Your task to perform on an android device: change the upload size in google photos Image 0: 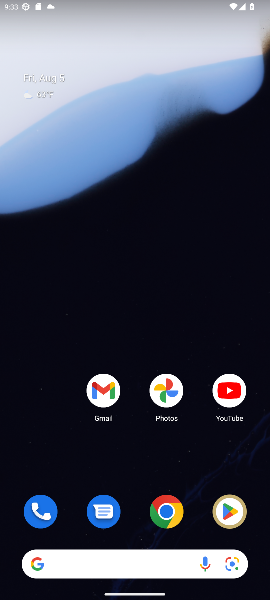
Step 0: drag from (123, 564) to (178, 213)
Your task to perform on an android device: change the upload size in google photos Image 1: 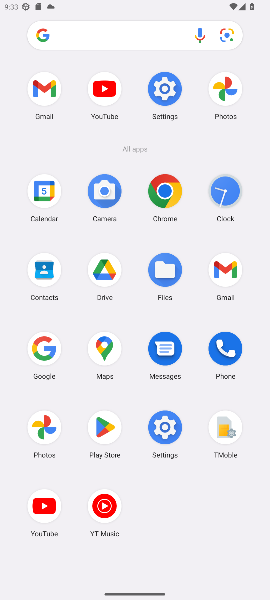
Step 1: click (226, 91)
Your task to perform on an android device: change the upload size in google photos Image 2: 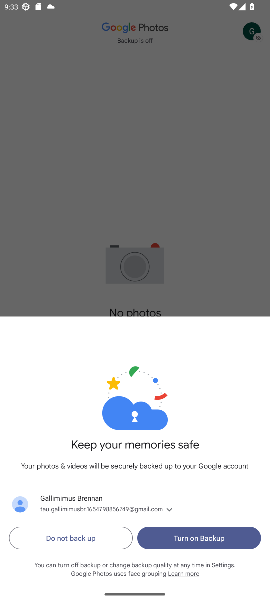
Step 2: click (192, 536)
Your task to perform on an android device: change the upload size in google photos Image 3: 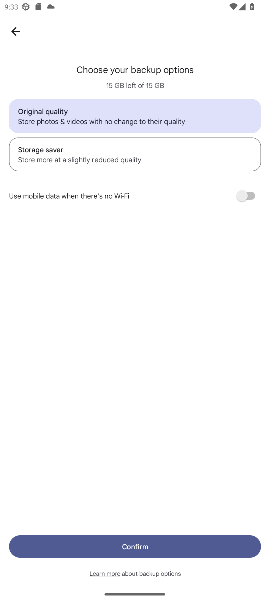
Step 3: click (187, 541)
Your task to perform on an android device: change the upload size in google photos Image 4: 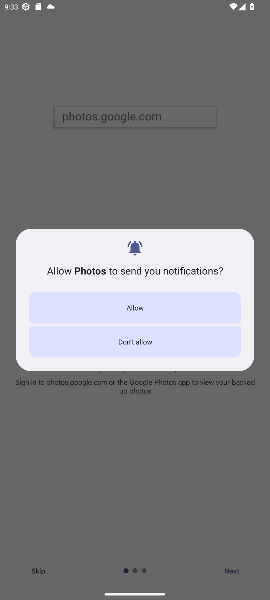
Step 4: click (135, 308)
Your task to perform on an android device: change the upload size in google photos Image 5: 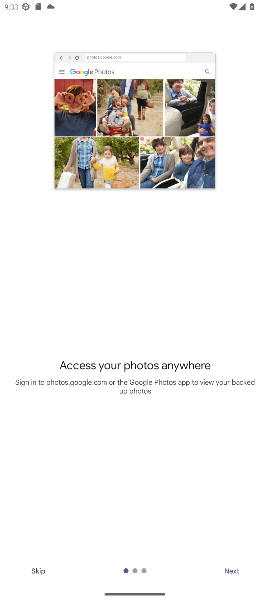
Step 5: click (37, 565)
Your task to perform on an android device: change the upload size in google photos Image 6: 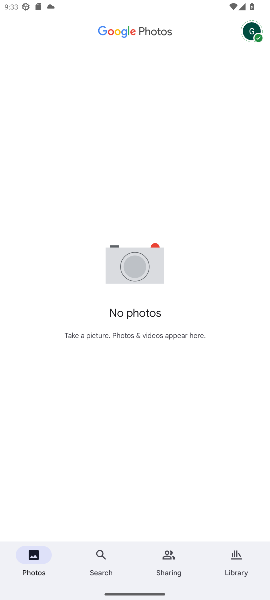
Step 6: click (249, 30)
Your task to perform on an android device: change the upload size in google photos Image 7: 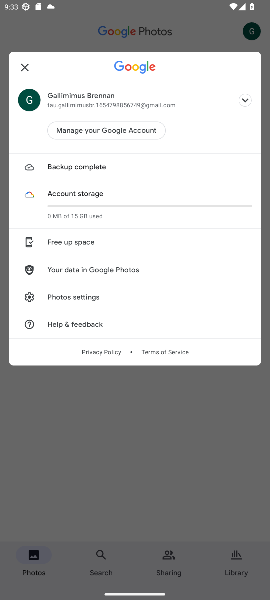
Step 7: click (85, 295)
Your task to perform on an android device: change the upload size in google photos Image 8: 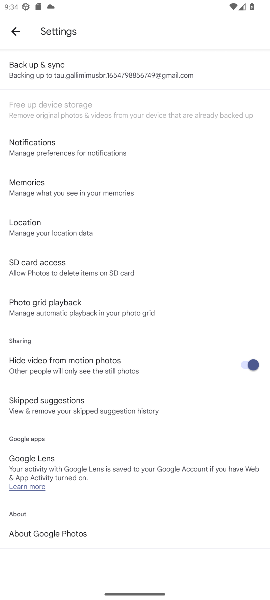
Step 8: click (115, 78)
Your task to perform on an android device: change the upload size in google photos Image 9: 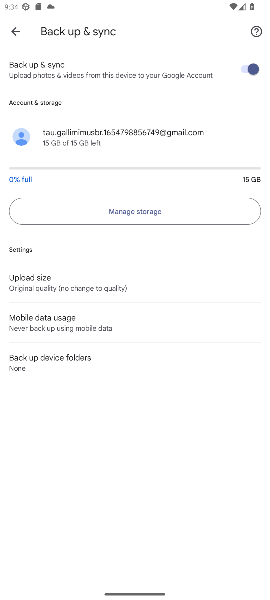
Step 9: click (70, 284)
Your task to perform on an android device: change the upload size in google photos Image 10: 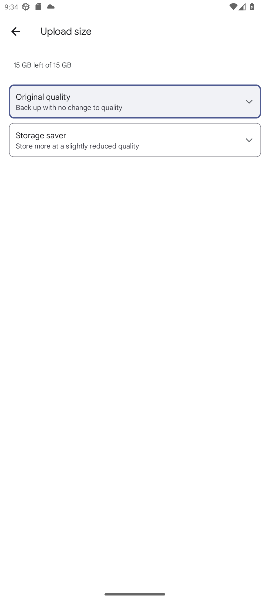
Step 10: click (70, 144)
Your task to perform on an android device: change the upload size in google photos Image 11: 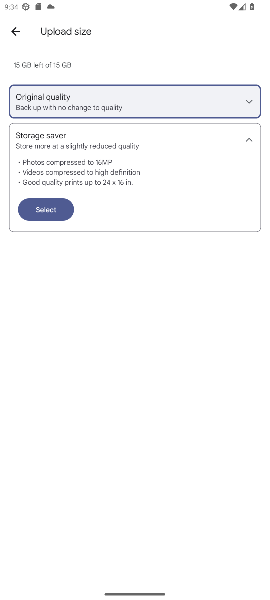
Step 11: click (39, 204)
Your task to perform on an android device: change the upload size in google photos Image 12: 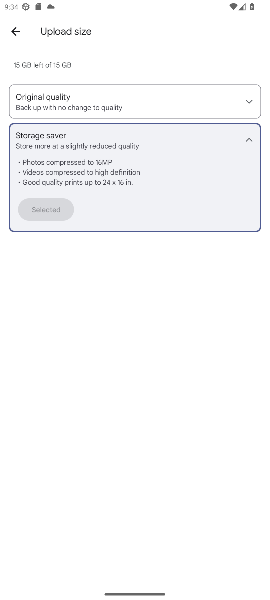
Step 12: task complete